Your task to perform on an android device: Show me recent news Image 0: 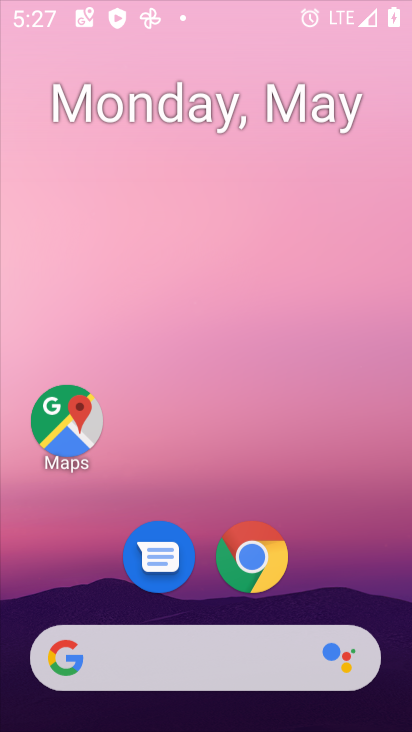
Step 0: drag from (254, 670) to (312, 32)
Your task to perform on an android device: Show me recent news Image 1: 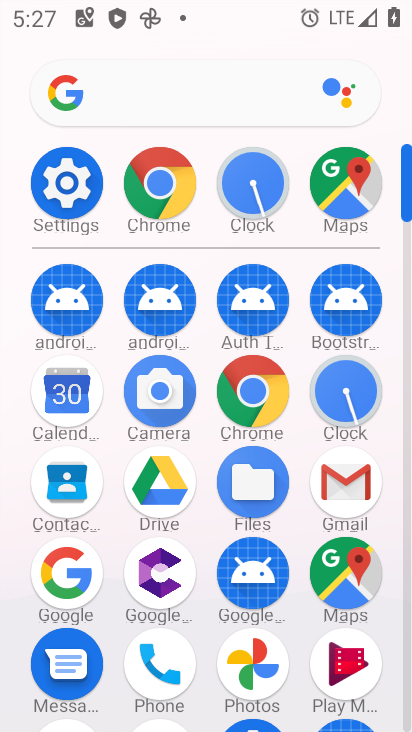
Step 1: click (273, 396)
Your task to perform on an android device: Show me recent news Image 2: 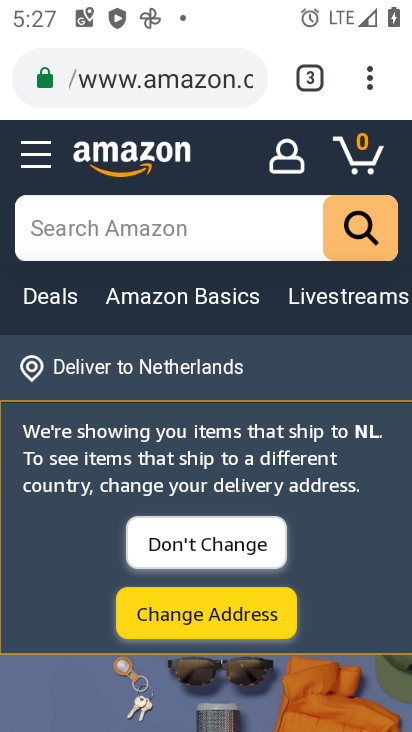
Step 2: click (217, 80)
Your task to perform on an android device: Show me recent news Image 3: 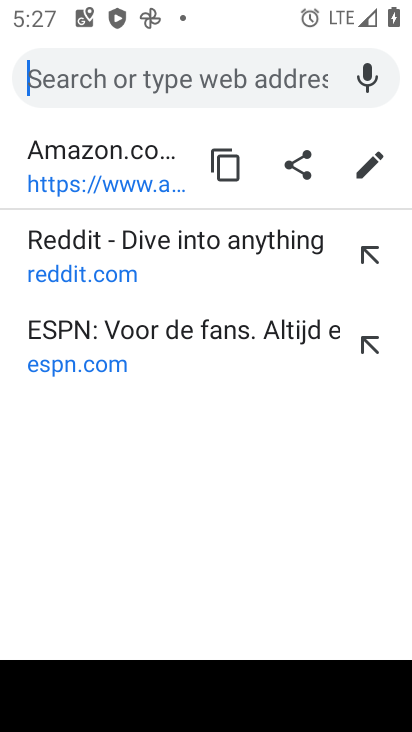
Step 3: type "recent news"
Your task to perform on an android device: Show me recent news Image 4: 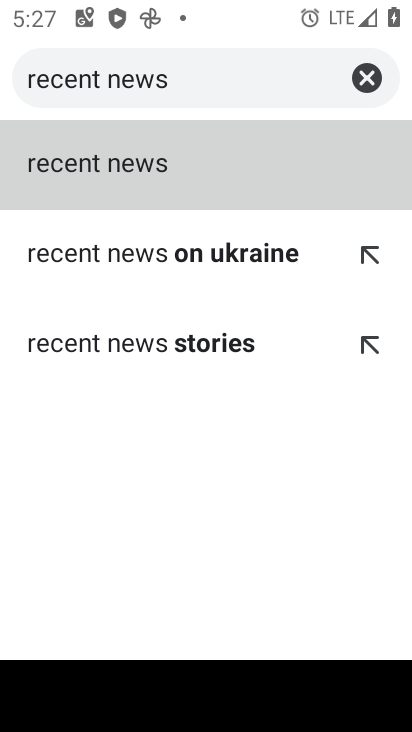
Step 4: click (230, 163)
Your task to perform on an android device: Show me recent news Image 5: 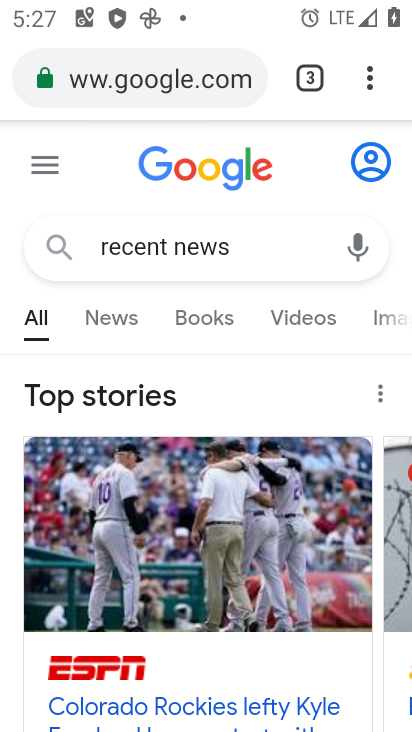
Step 5: task complete